Your task to perform on an android device: add a contact Image 0: 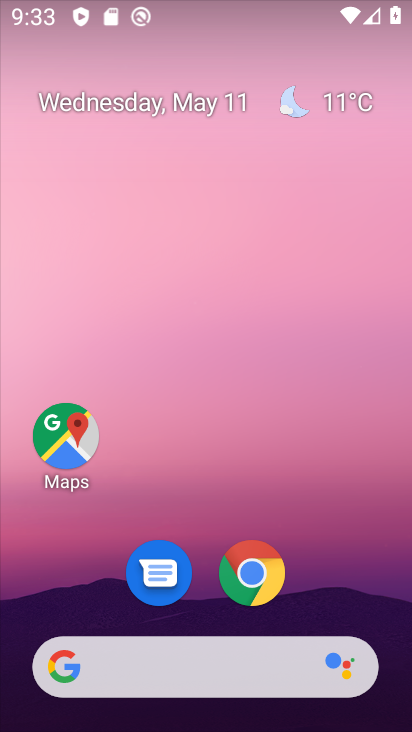
Step 0: drag from (201, 191) to (173, 125)
Your task to perform on an android device: add a contact Image 1: 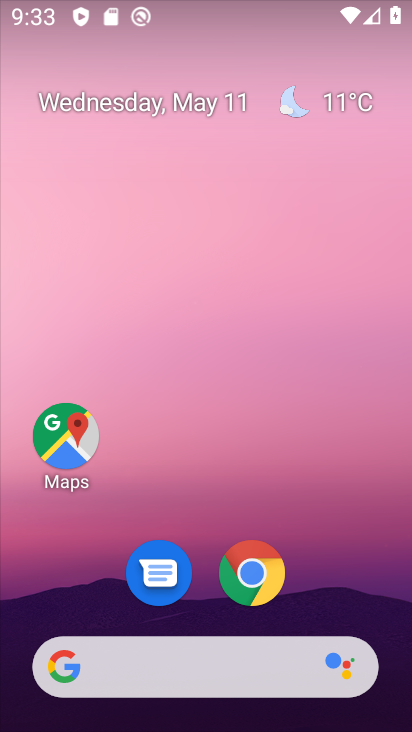
Step 1: drag from (204, 165) to (143, 10)
Your task to perform on an android device: add a contact Image 2: 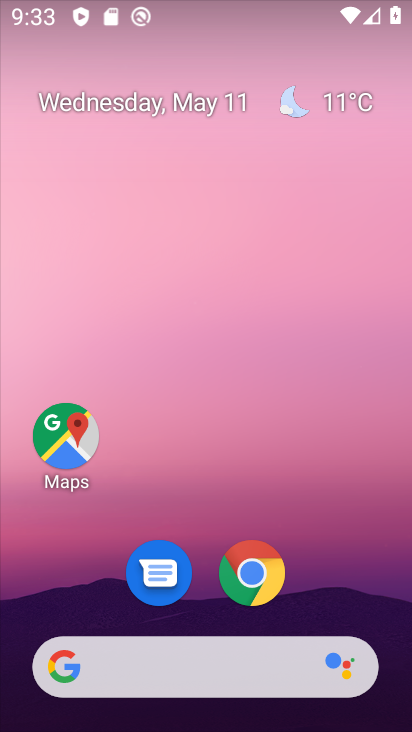
Step 2: drag from (268, 367) to (162, 40)
Your task to perform on an android device: add a contact Image 3: 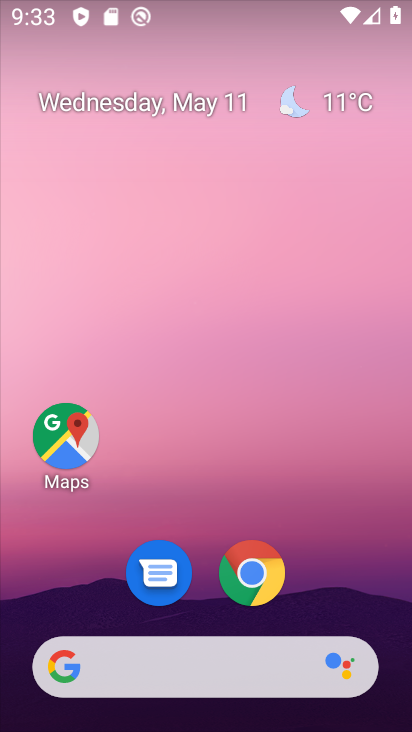
Step 3: drag from (252, 452) to (125, 36)
Your task to perform on an android device: add a contact Image 4: 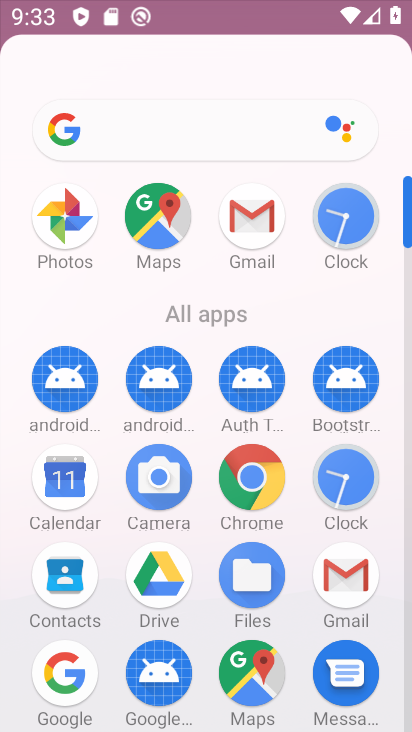
Step 4: drag from (262, 440) to (120, 64)
Your task to perform on an android device: add a contact Image 5: 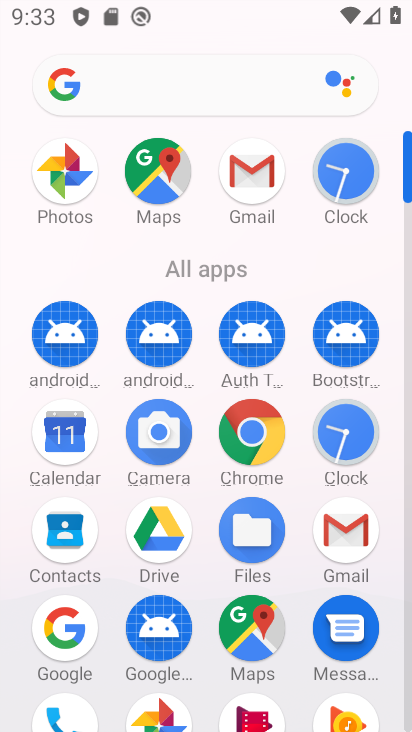
Step 5: drag from (206, 146) to (172, 53)
Your task to perform on an android device: add a contact Image 6: 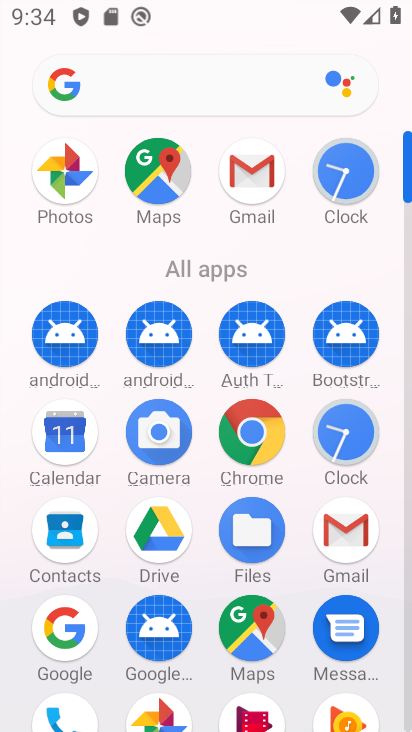
Step 6: click (57, 532)
Your task to perform on an android device: add a contact Image 7: 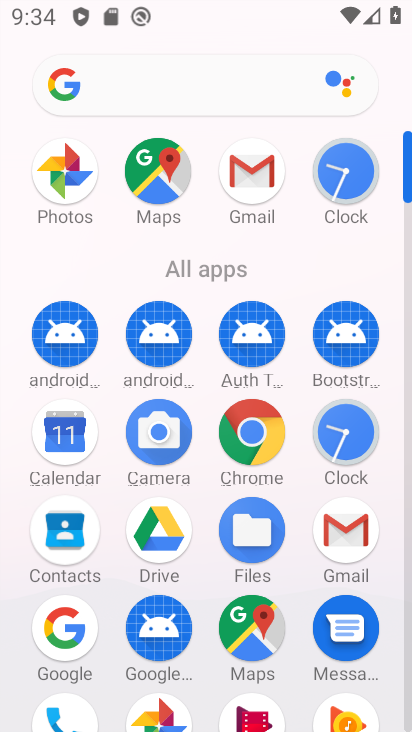
Step 7: click (57, 532)
Your task to perform on an android device: add a contact Image 8: 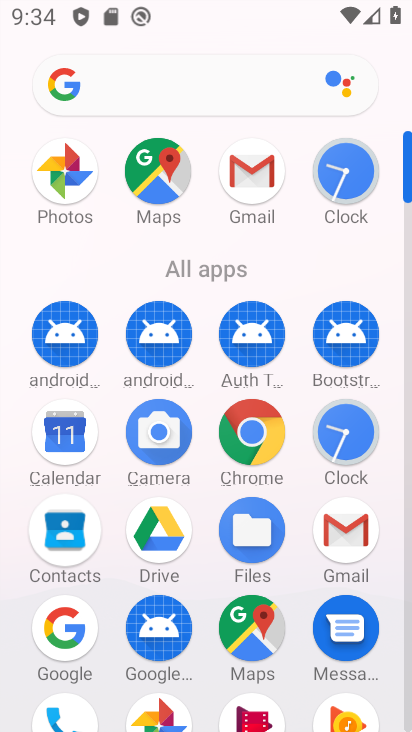
Step 8: click (57, 532)
Your task to perform on an android device: add a contact Image 9: 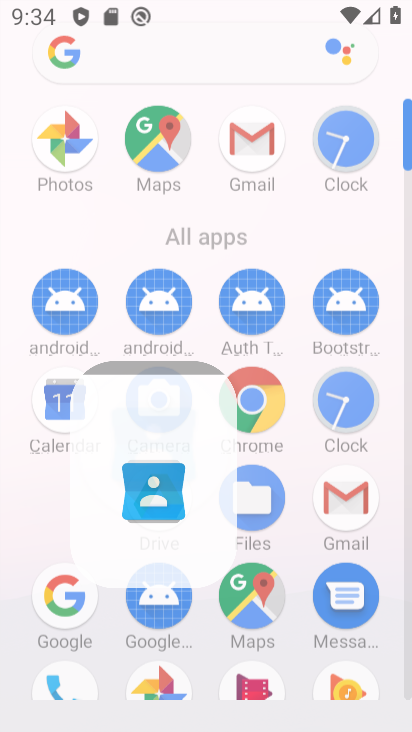
Step 9: click (58, 533)
Your task to perform on an android device: add a contact Image 10: 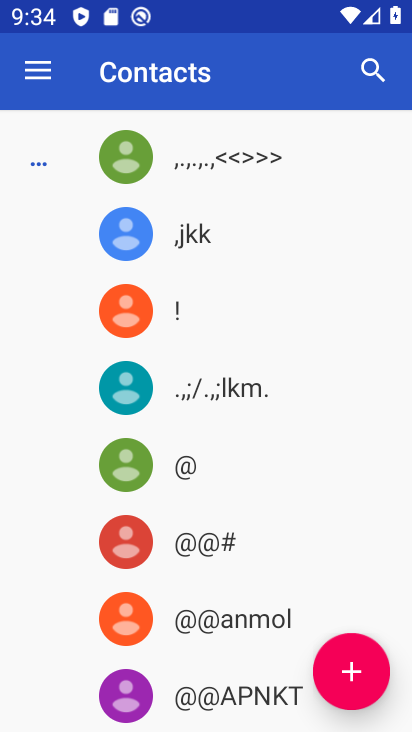
Step 10: click (346, 660)
Your task to perform on an android device: add a contact Image 11: 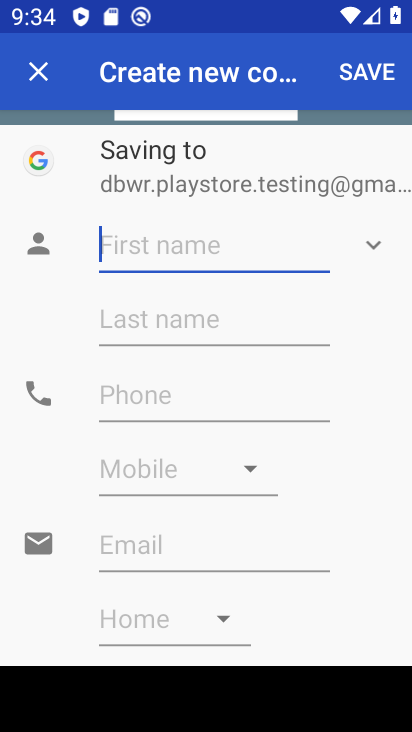
Step 11: click (108, 244)
Your task to perform on an android device: add a contact Image 12: 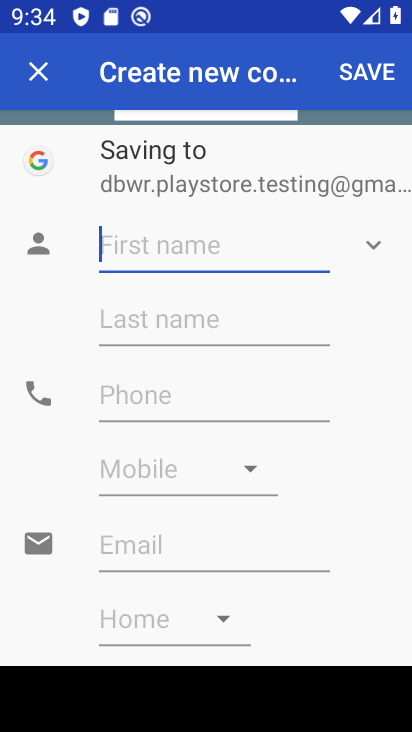
Step 12: type "hbbkjfks"
Your task to perform on an android device: add a contact Image 13: 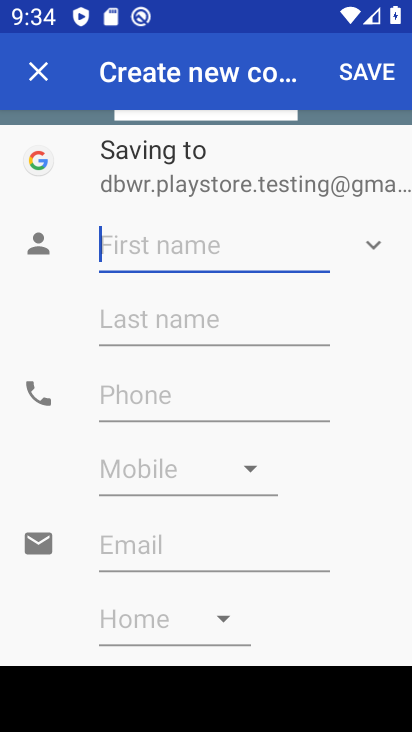
Step 13: click (142, 393)
Your task to perform on an android device: add a contact Image 14: 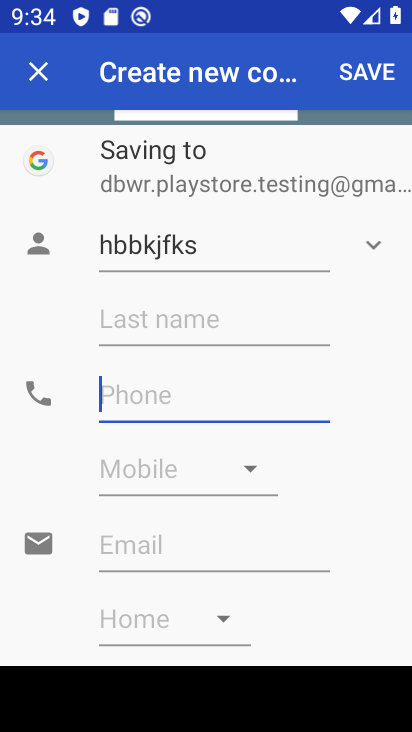
Step 14: click (129, 397)
Your task to perform on an android device: add a contact Image 15: 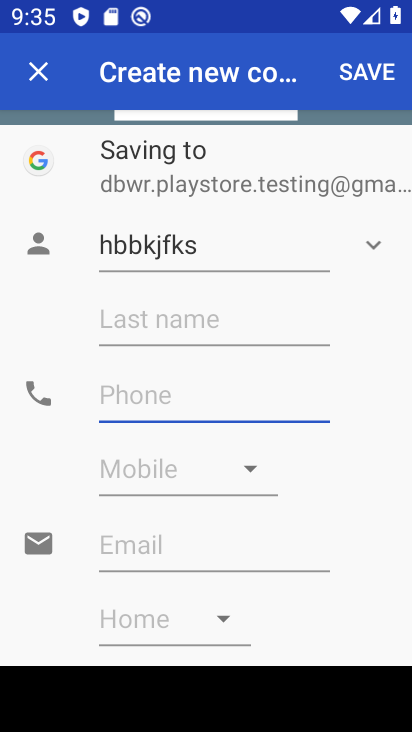
Step 15: type "jhbjhjhjh"
Your task to perform on an android device: add a contact Image 16: 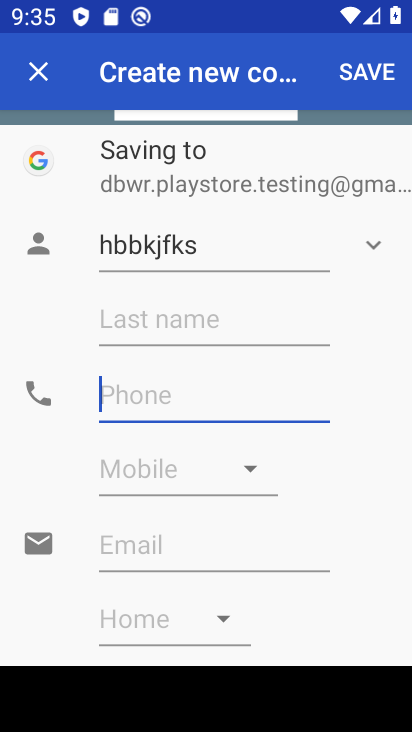
Step 16: click (149, 398)
Your task to perform on an android device: add a contact Image 17: 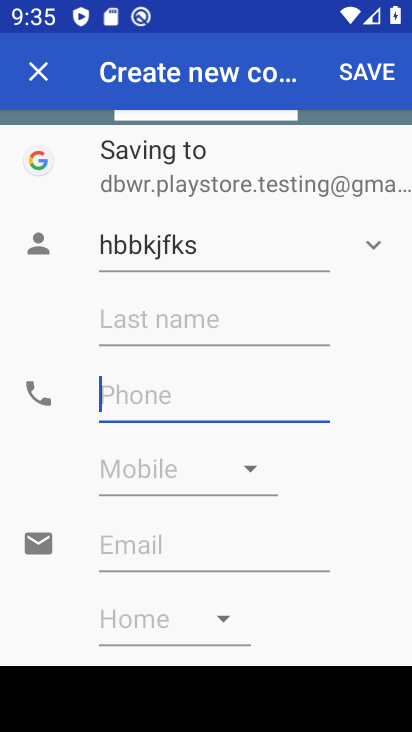
Step 17: click (130, 393)
Your task to perform on an android device: add a contact Image 18: 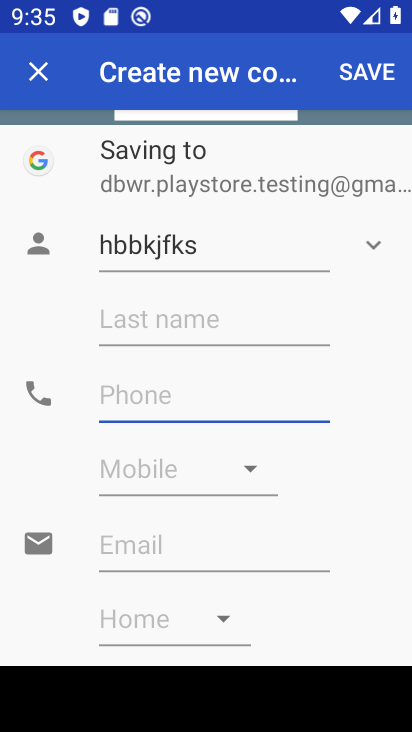
Step 18: click (130, 393)
Your task to perform on an android device: add a contact Image 19: 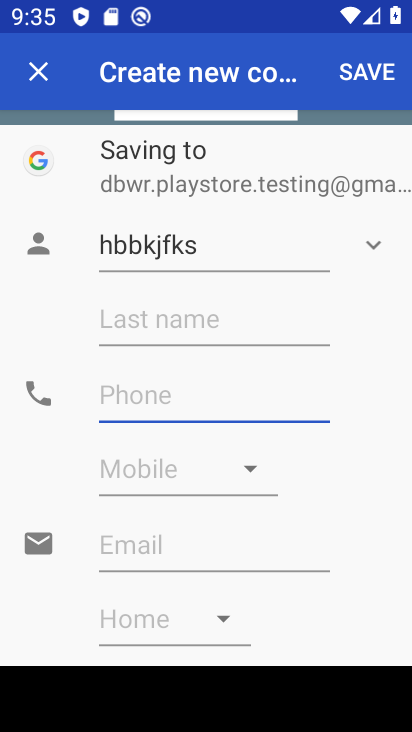
Step 19: click (130, 393)
Your task to perform on an android device: add a contact Image 20: 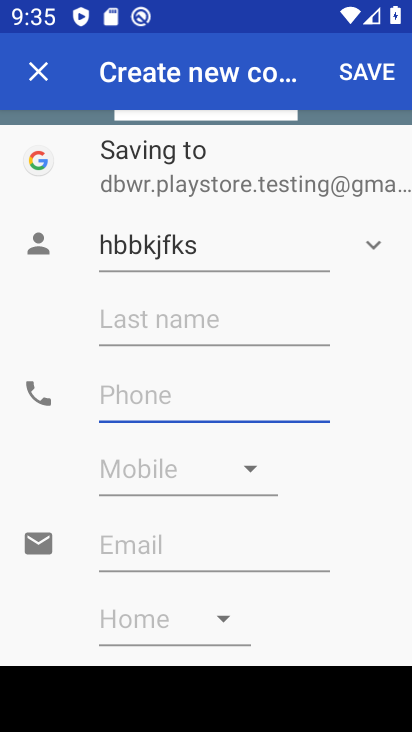
Step 20: type "8790833889999"
Your task to perform on an android device: add a contact Image 21: 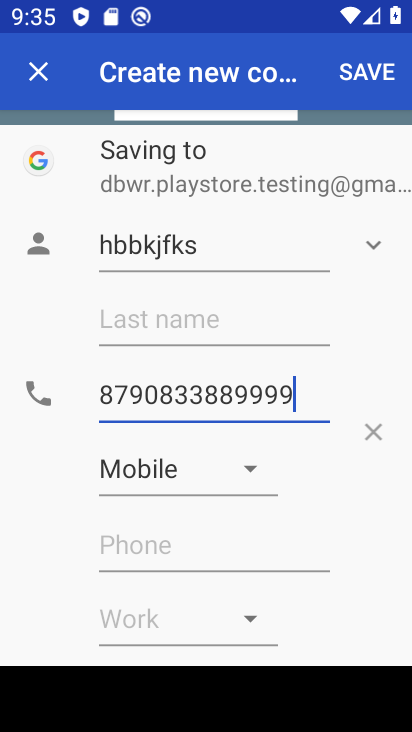
Step 21: click (363, 79)
Your task to perform on an android device: add a contact Image 22: 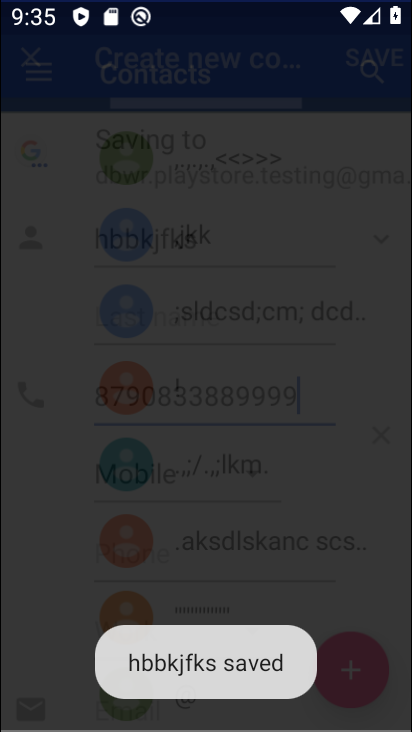
Step 22: click (366, 69)
Your task to perform on an android device: add a contact Image 23: 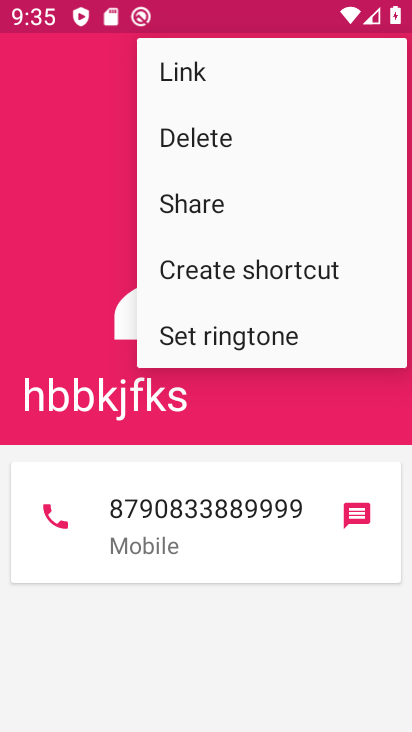
Step 23: click (55, 162)
Your task to perform on an android device: add a contact Image 24: 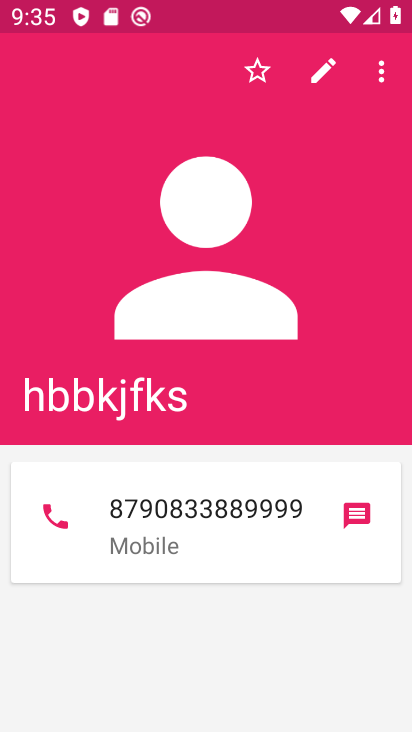
Step 24: task complete